Your task to perform on an android device: turn notification dots off Image 0: 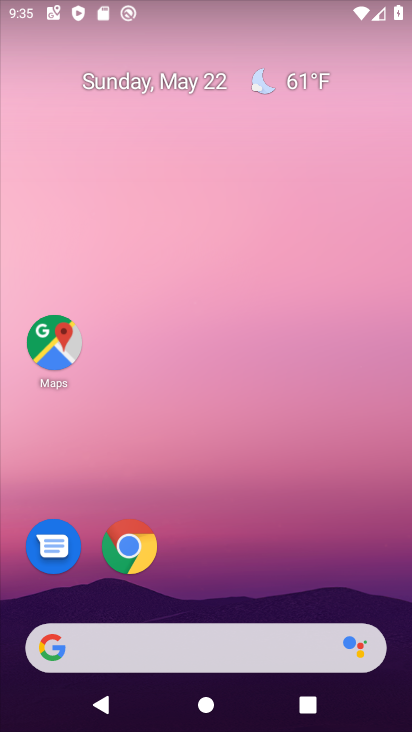
Step 0: drag from (253, 573) to (193, 64)
Your task to perform on an android device: turn notification dots off Image 1: 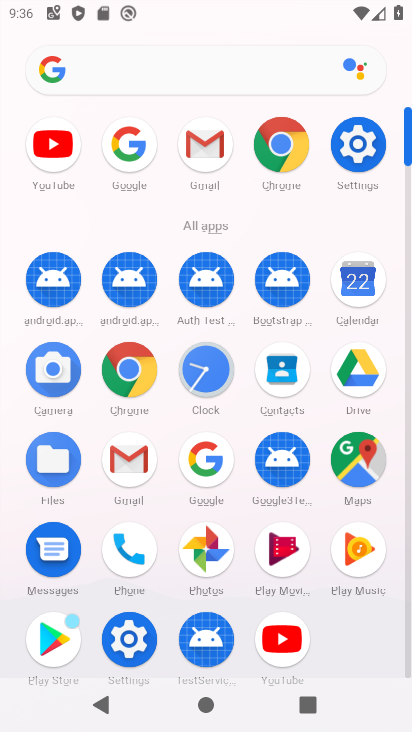
Step 1: click (358, 143)
Your task to perform on an android device: turn notification dots off Image 2: 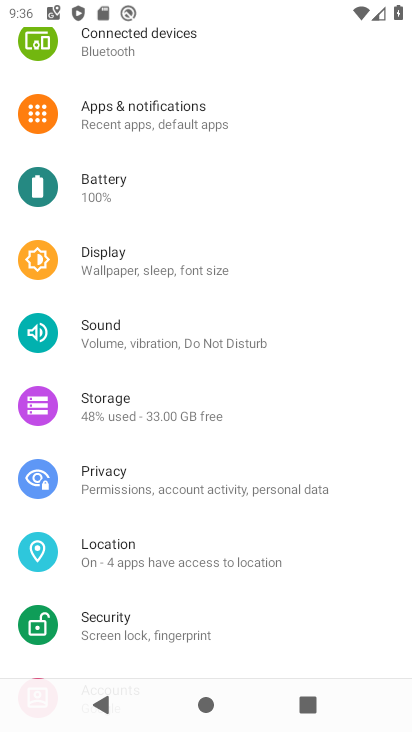
Step 2: drag from (232, 301) to (263, 414)
Your task to perform on an android device: turn notification dots off Image 3: 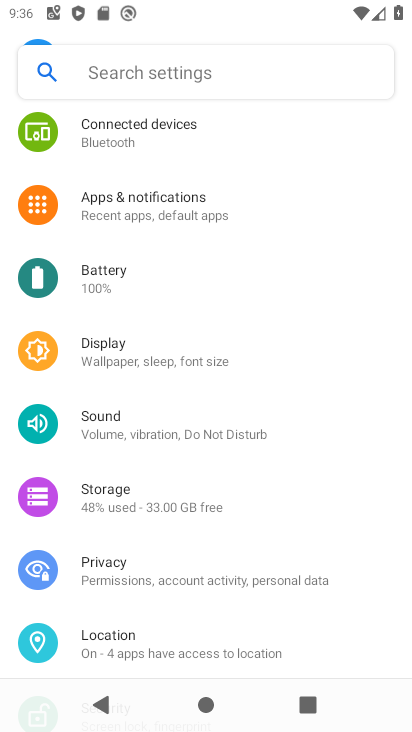
Step 3: click (151, 209)
Your task to perform on an android device: turn notification dots off Image 4: 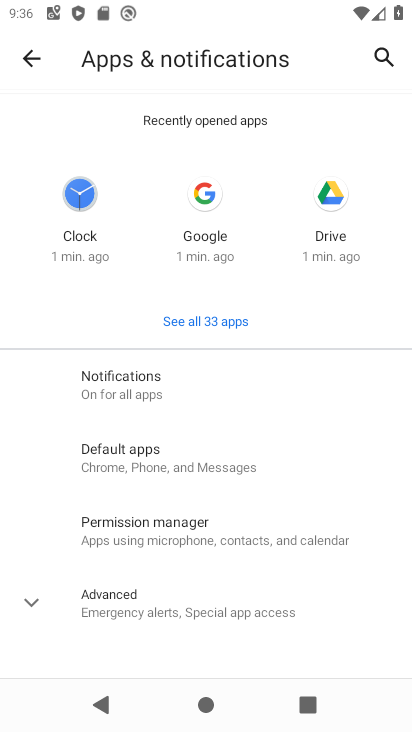
Step 4: click (140, 377)
Your task to perform on an android device: turn notification dots off Image 5: 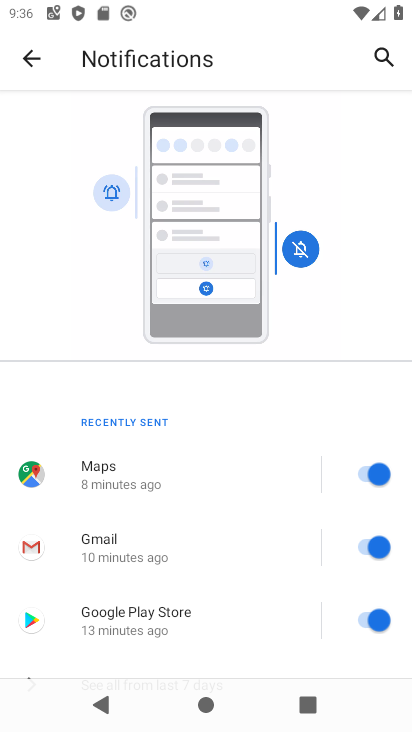
Step 5: drag from (182, 520) to (205, 418)
Your task to perform on an android device: turn notification dots off Image 6: 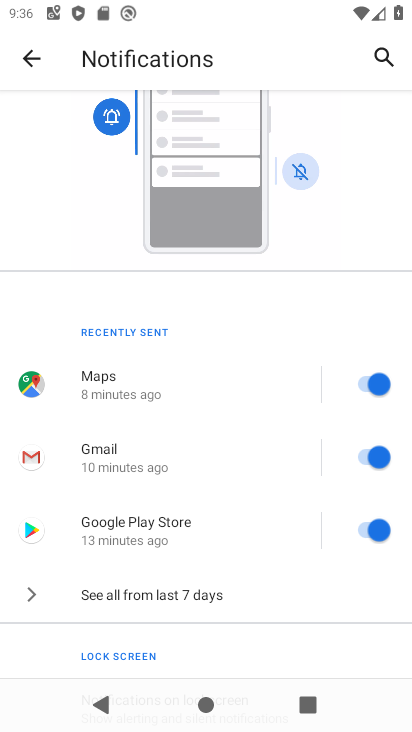
Step 6: drag from (125, 553) to (190, 415)
Your task to perform on an android device: turn notification dots off Image 7: 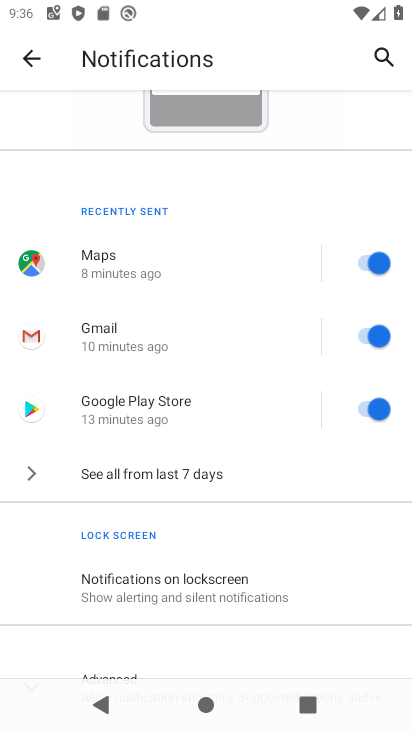
Step 7: drag from (152, 542) to (172, 435)
Your task to perform on an android device: turn notification dots off Image 8: 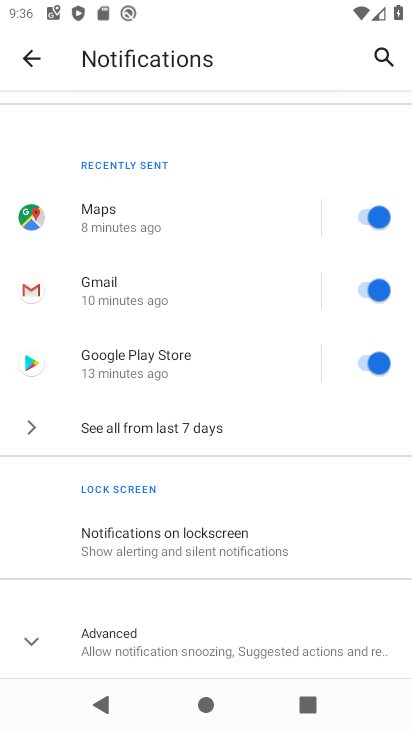
Step 8: click (163, 650)
Your task to perform on an android device: turn notification dots off Image 9: 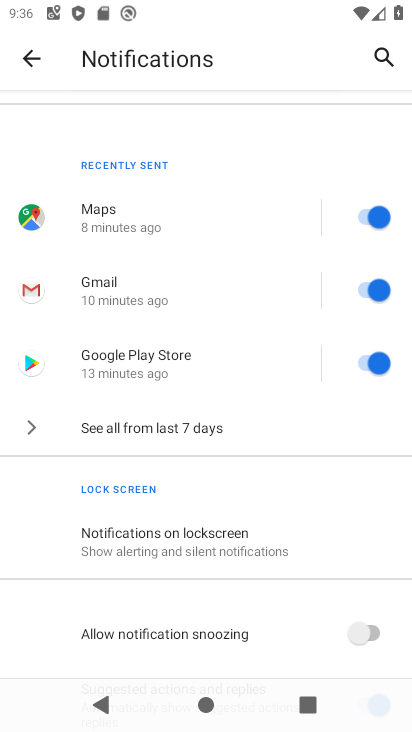
Step 9: drag from (184, 594) to (213, 496)
Your task to perform on an android device: turn notification dots off Image 10: 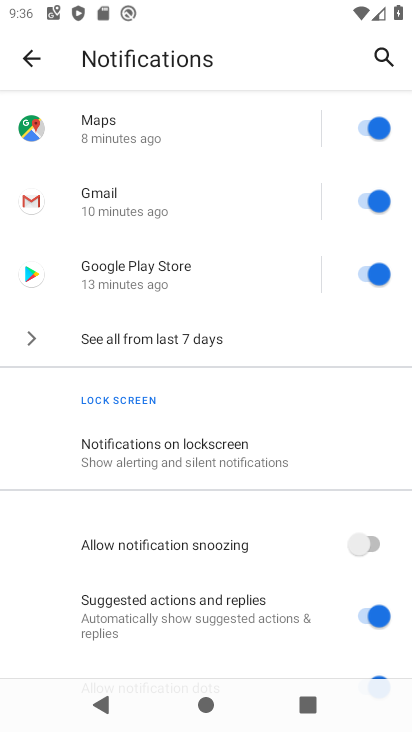
Step 10: drag from (159, 627) to (213, 529)
Your task to perform on an android device: turn notification dots off Image 11: 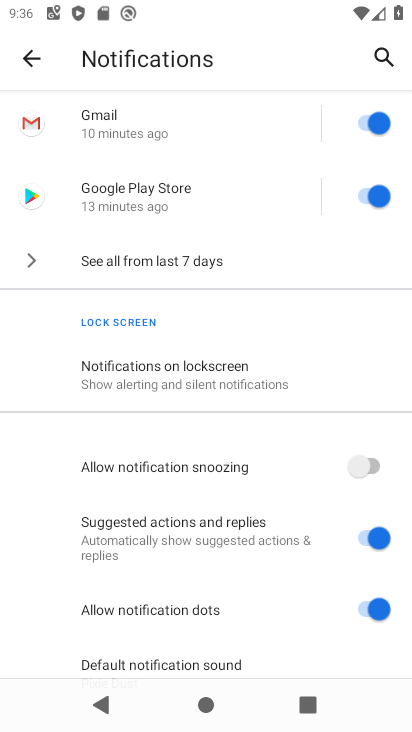
Step 11: click (363, 613)
Your task to perform on an android device: turn notification dots off Image 12: 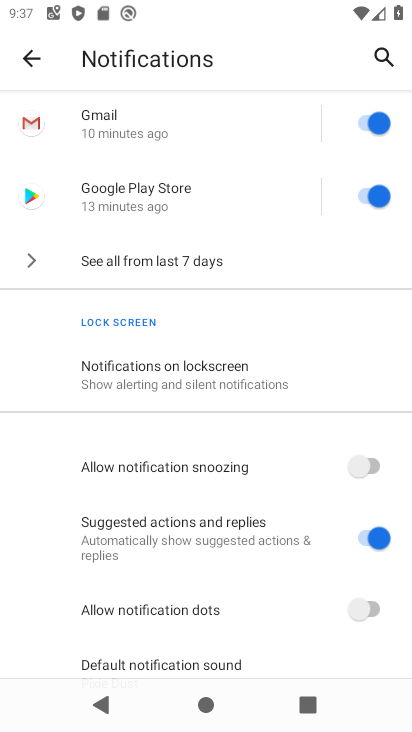
Step 12: task complete